Your task to perform on an android device: Search for Italian restaurants on Maps Image 0: 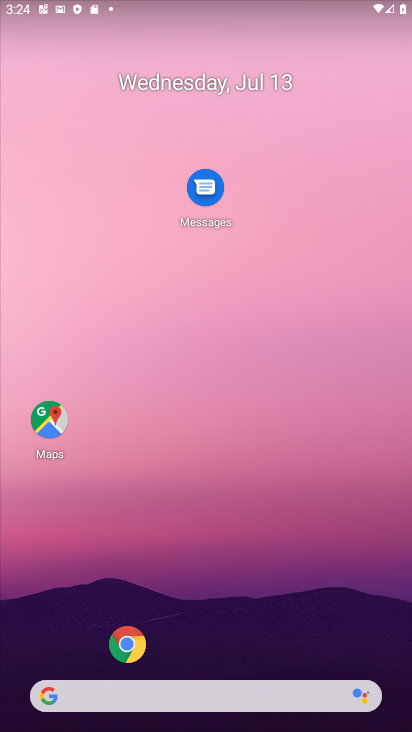
Step 0: click (48, 417)
Your task to perform on an android device: Search for Italian restaurants on Maps Image 1: 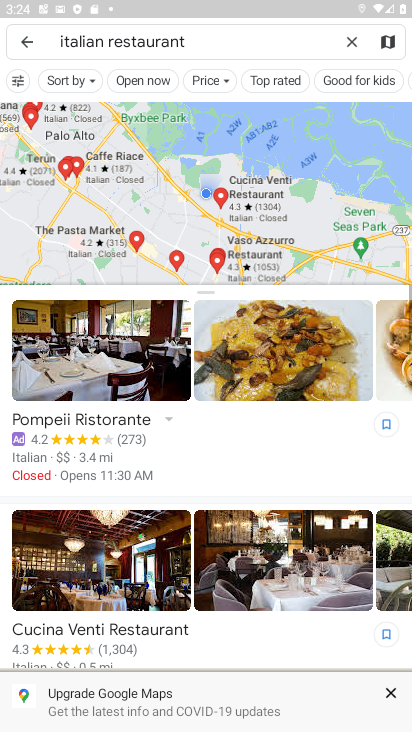
Step 1: click (226, 35)
Your task to perform on an android device: Search for Italian restaurants on Maps Image 2: 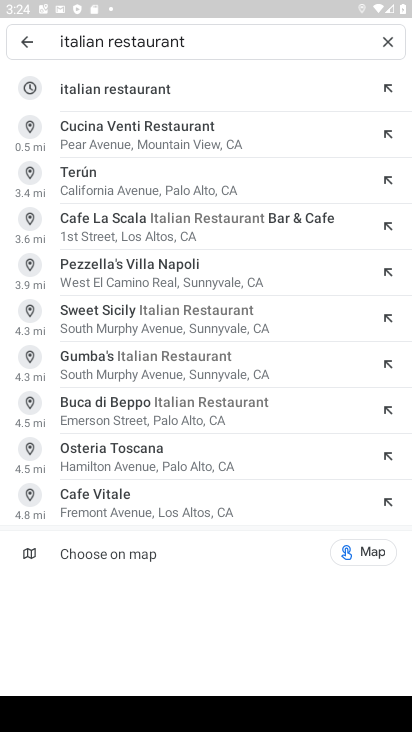
Step 2: click (153, 72)
Your task to perform on an android device: Search for Italian restaurants on Maps Image 3: 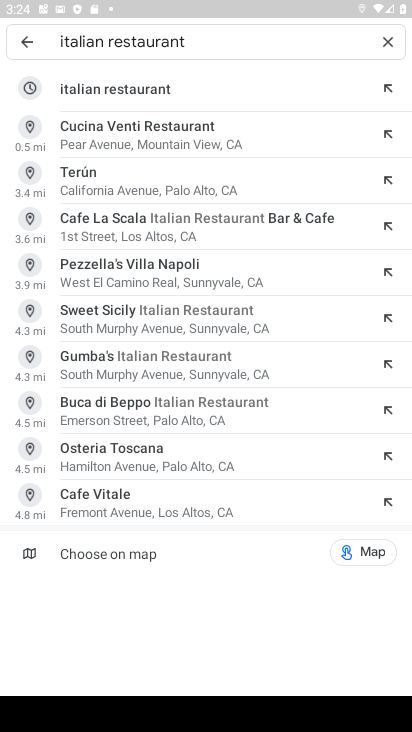
Step 3: click (152, 87)
Your task to perform on an android device: Search for Italian restaurants on Maps Image 4: 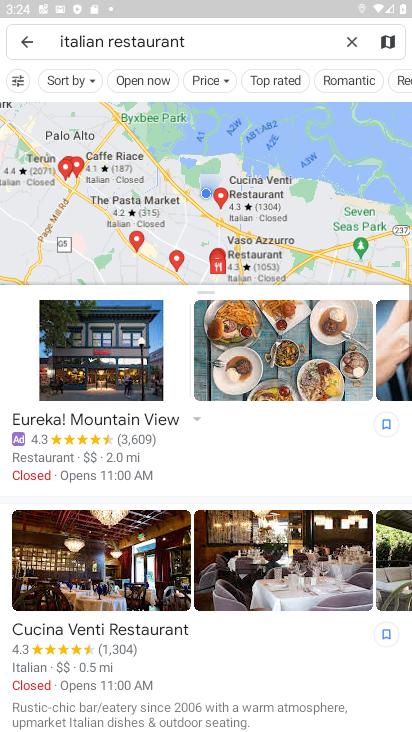
Step 4: task complete